Your task to perform on an android device: Open Yahoo.com Image 0: 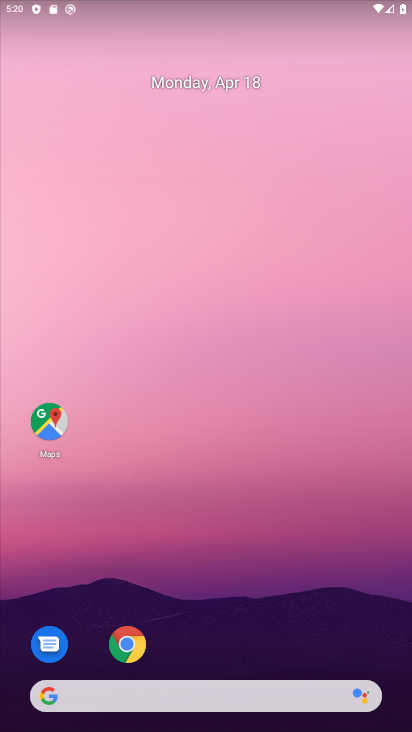
Step 0: click (125, 644)
Your task to perform on an android device: Open Yahoo.com Image 1: 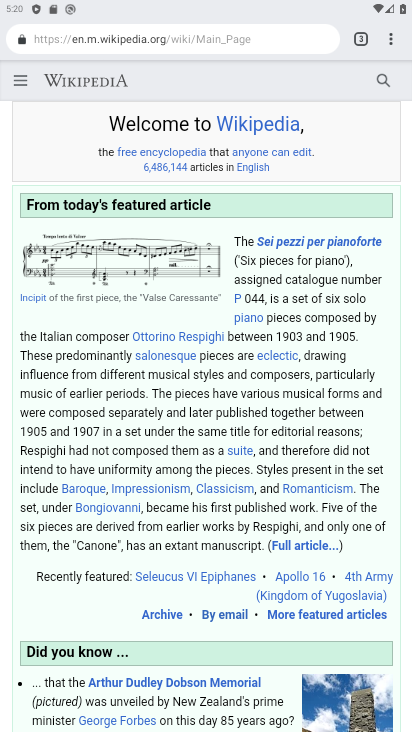
Step 1: click (357, 40)
Your task to perform on an android device: Open Yahoo.com Image 2: 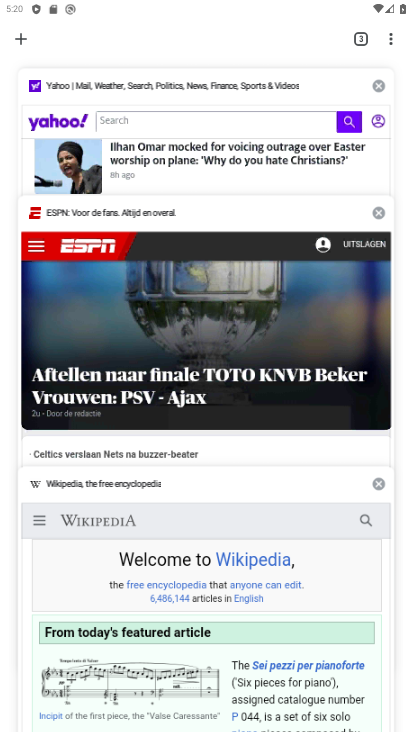
Step 2: click (381, 80)
Your task to perform on an android device: Open Yahoo.com Image 3: 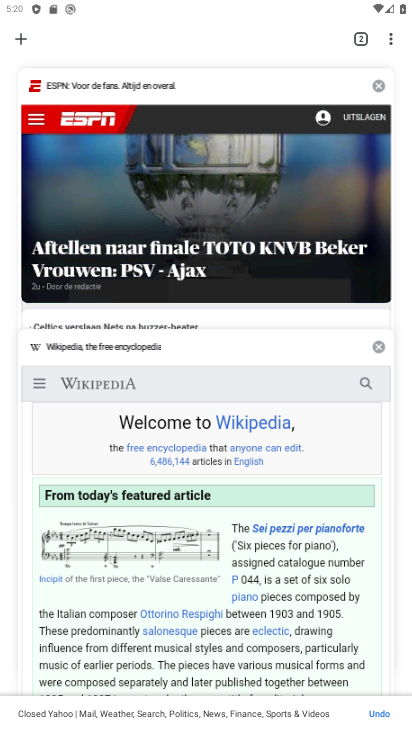
Step 3: click (374, 84)
Your task to perform on an android device: Open Yahoo.com Image 4: 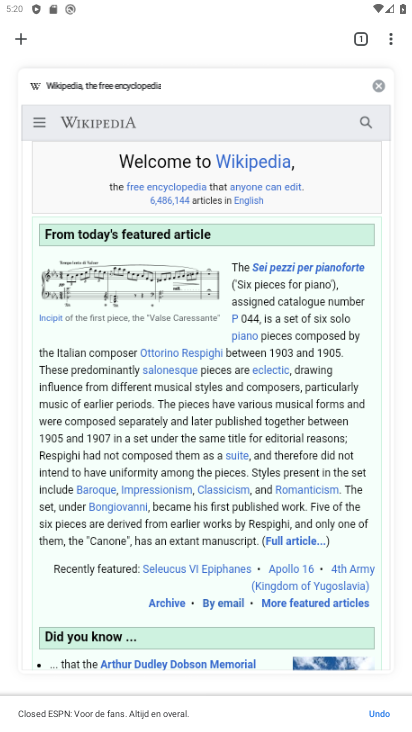
Step 4: click (374, 84)
Your task to perform on an android device: Open Yahoo.com Image 5: 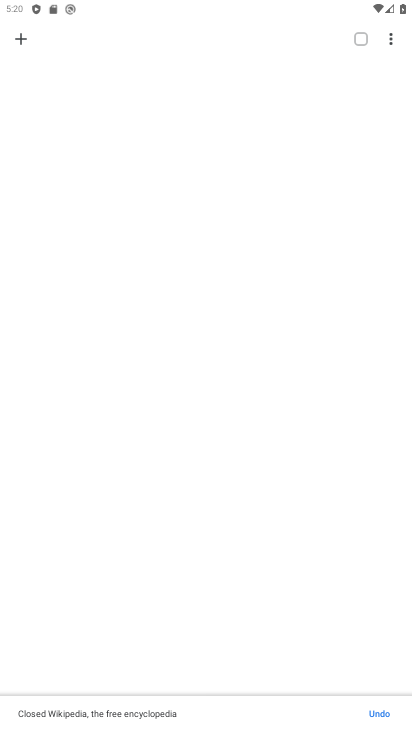
Step 5: click (19, 38)
Your task to perform on an android device: Open Yahoo.com Image 6: 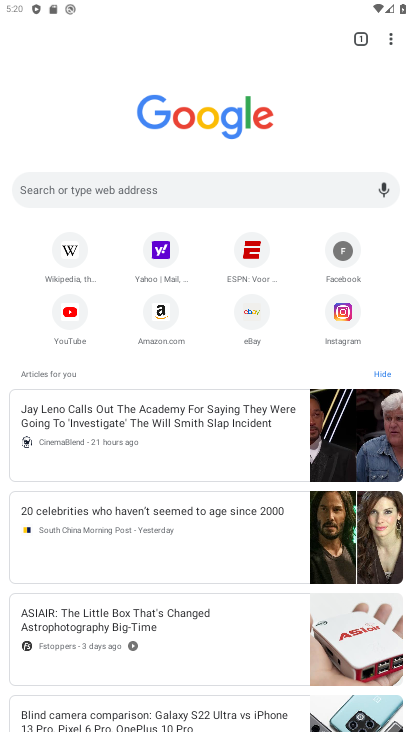
Step 6: click (157, 250)
Your task to perform on an android device: Open Yahoo.com Image 7: 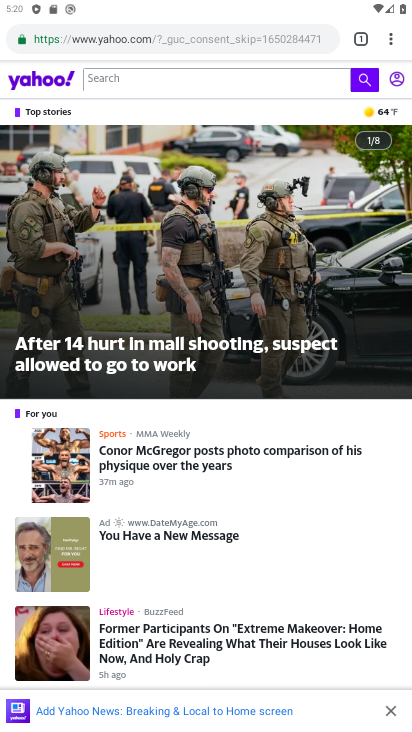
Step 7: task complete